Your task to perform on an android device: Open Chrome and go to settings Image 0: 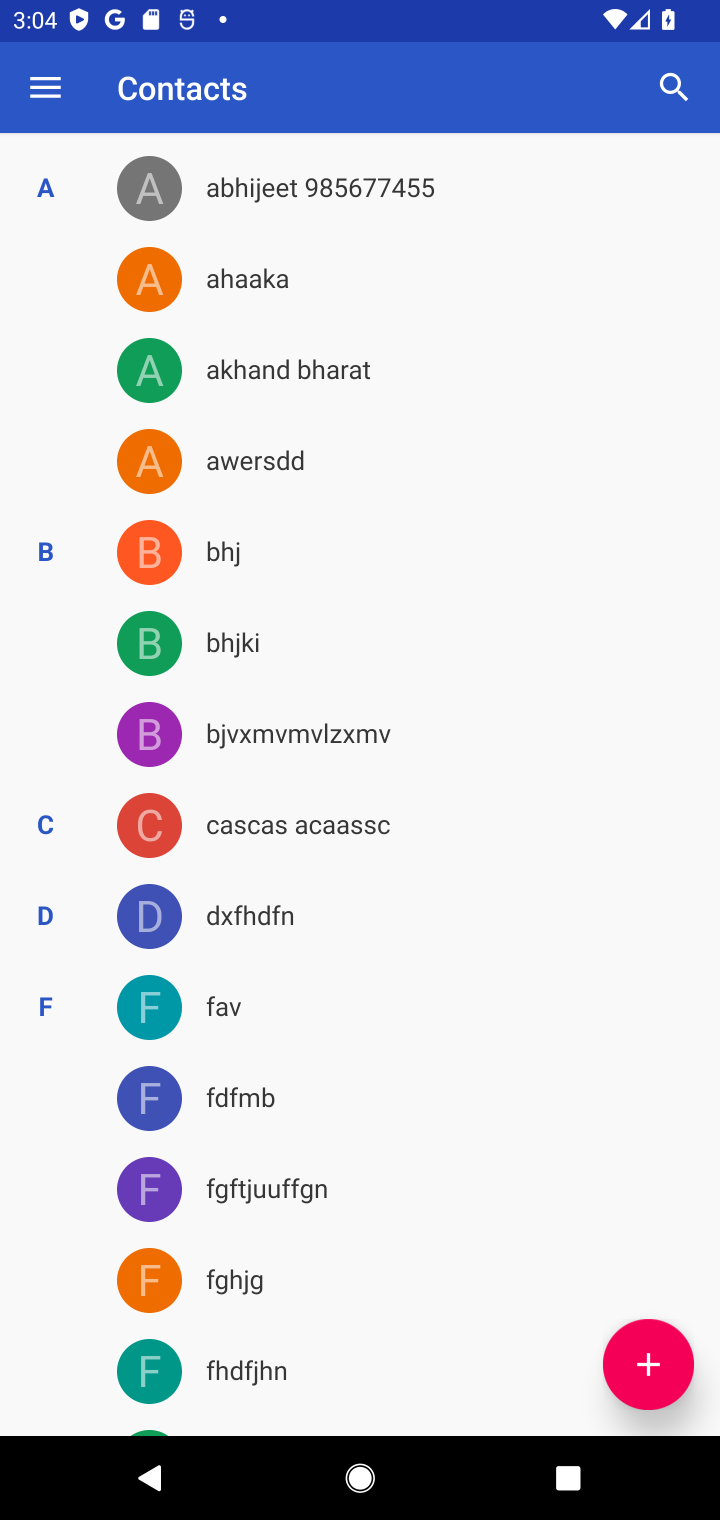
Step 0: press home button
Your task to perform on an android device: Open Chrome and go to settings Image 1: 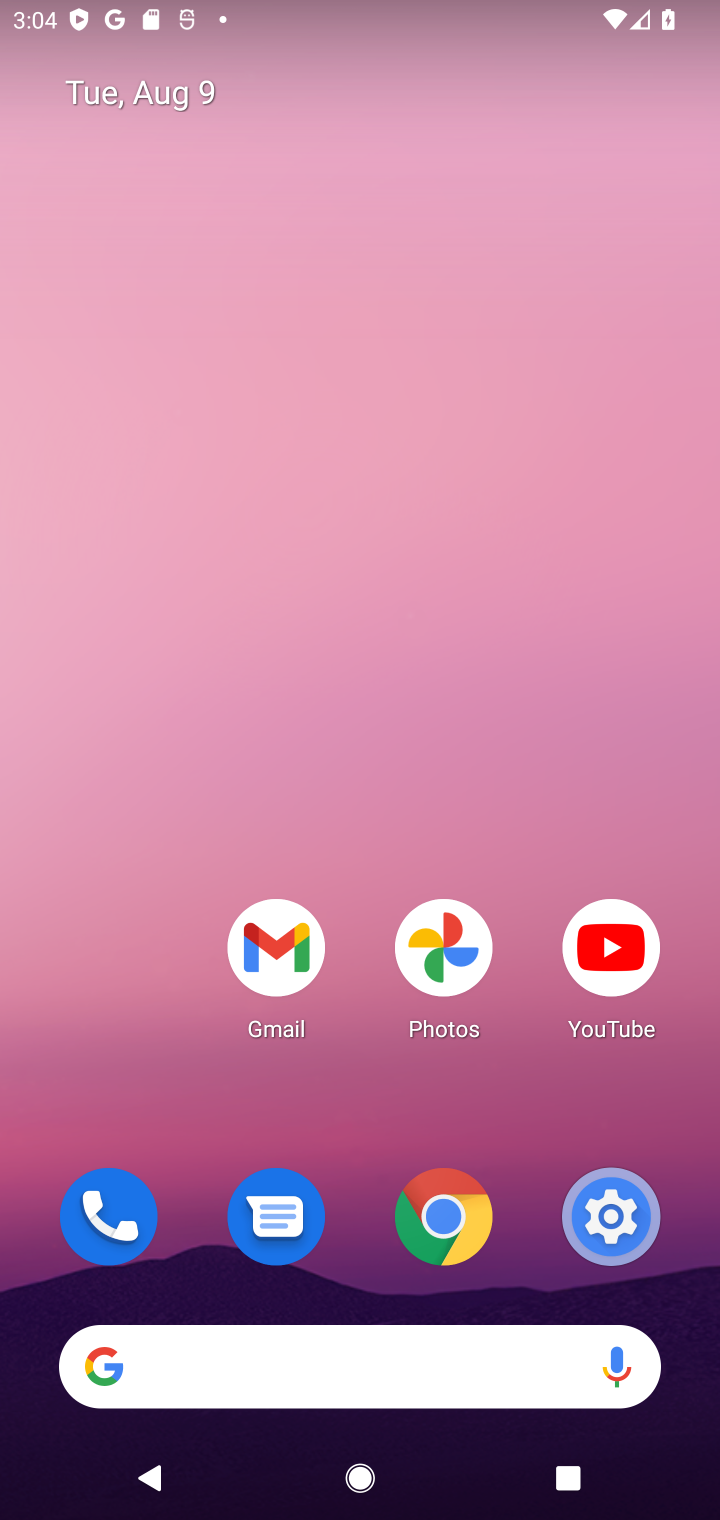
Step 1: click (460, 1226)
Your task to perform on an android device: Open Chrome and go to settings Image 2: 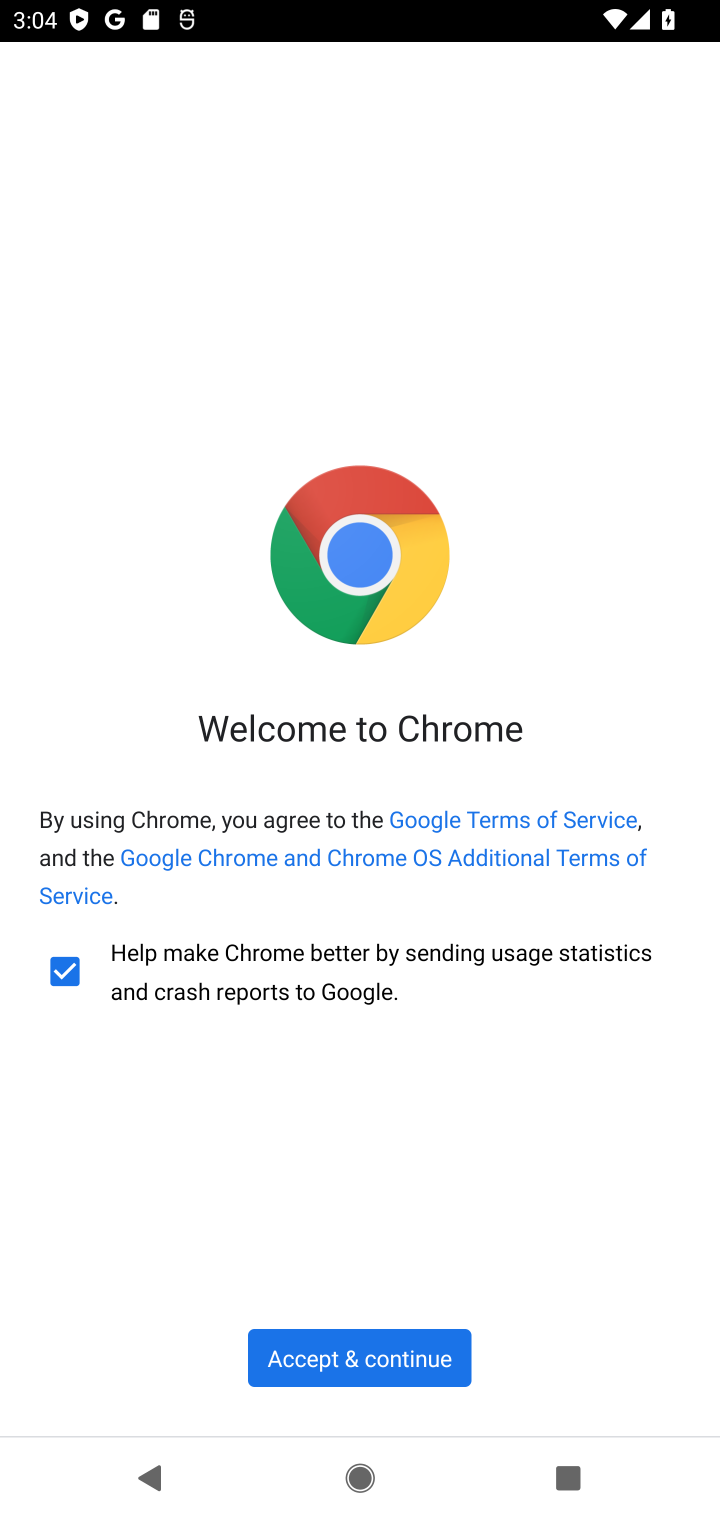
Step 2: click (374, 1348)
Your task to perform on an android device: Open Chrome and go to settings Image 3: 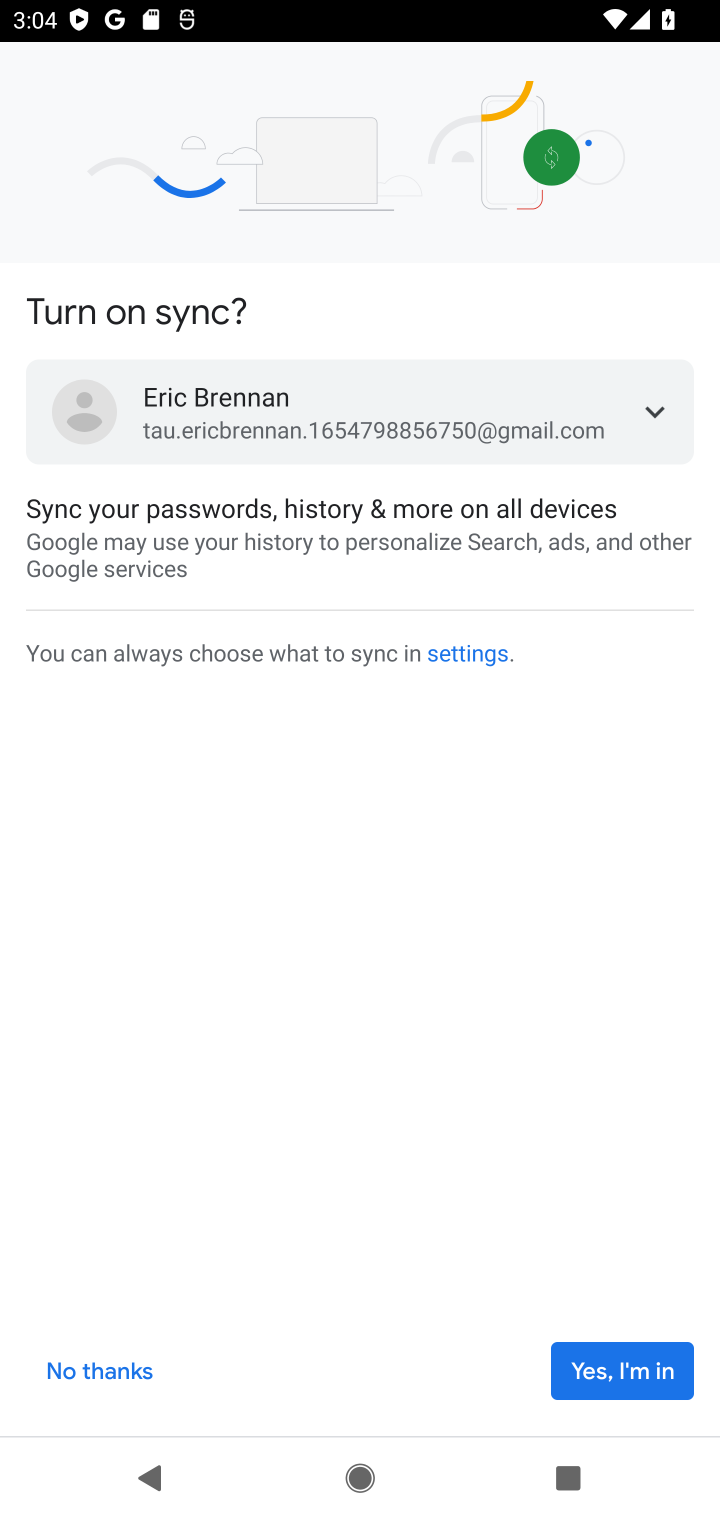
Step 3: click (665, 1365)
Your task to perform on an android device: Open Chrome and go to settings Image 4: 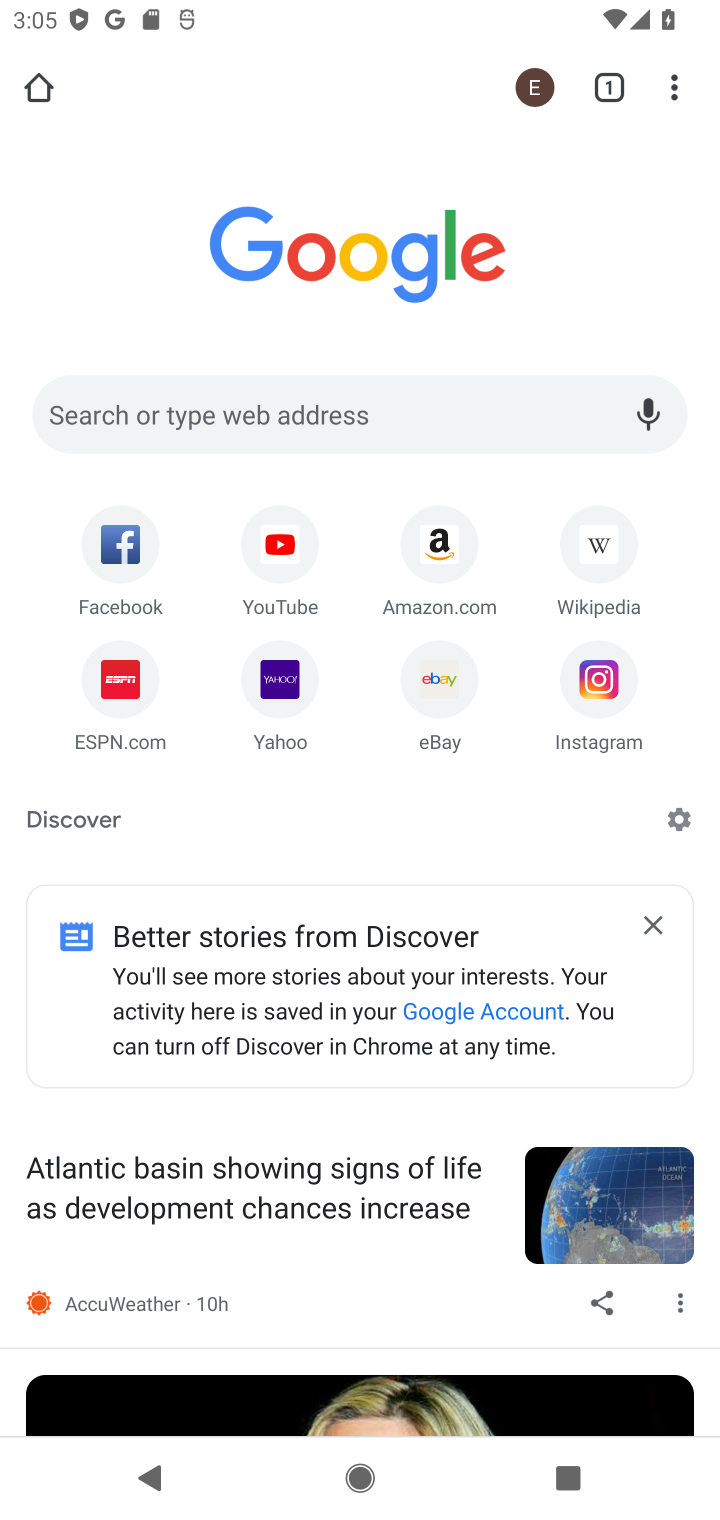
Step 4: click (668, 79)
Your task to perform on an android device: Open Chrome and go to settings Image 5: 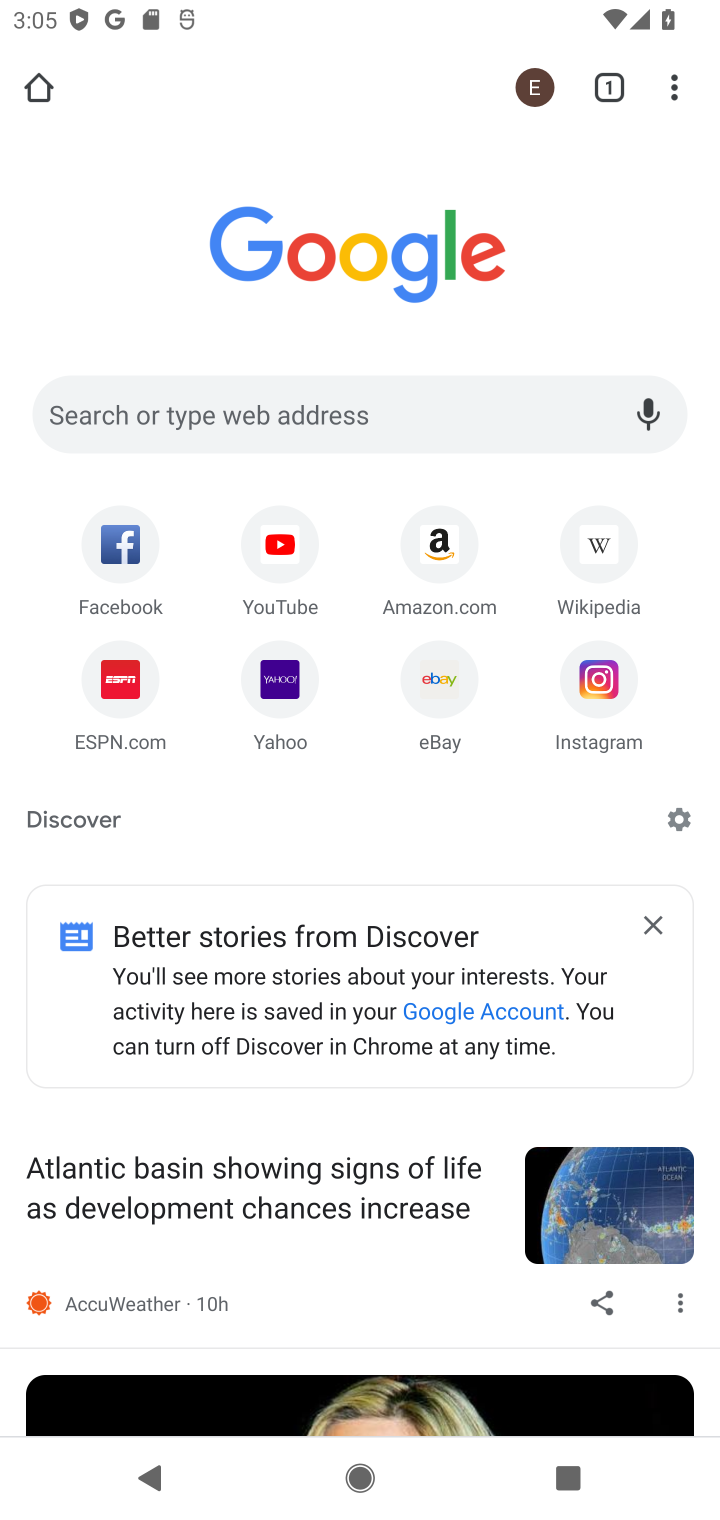
Step 5: click (666, 98)
Your task to perform on an android device: Open Chrome and go to settings Image 6: 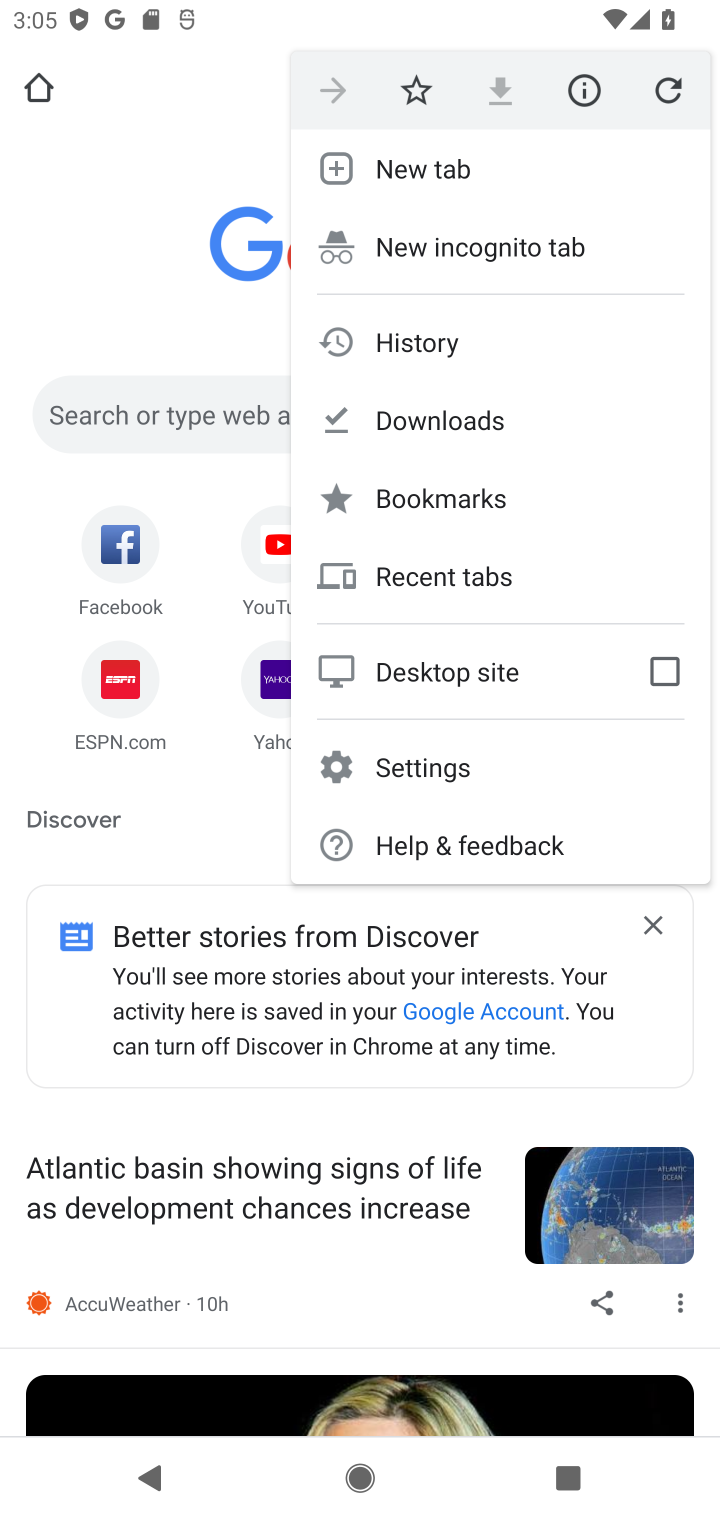
Step 6: click (384, 759)
Your task to perform on an android device: Open Chrome and go to settings Image 7: 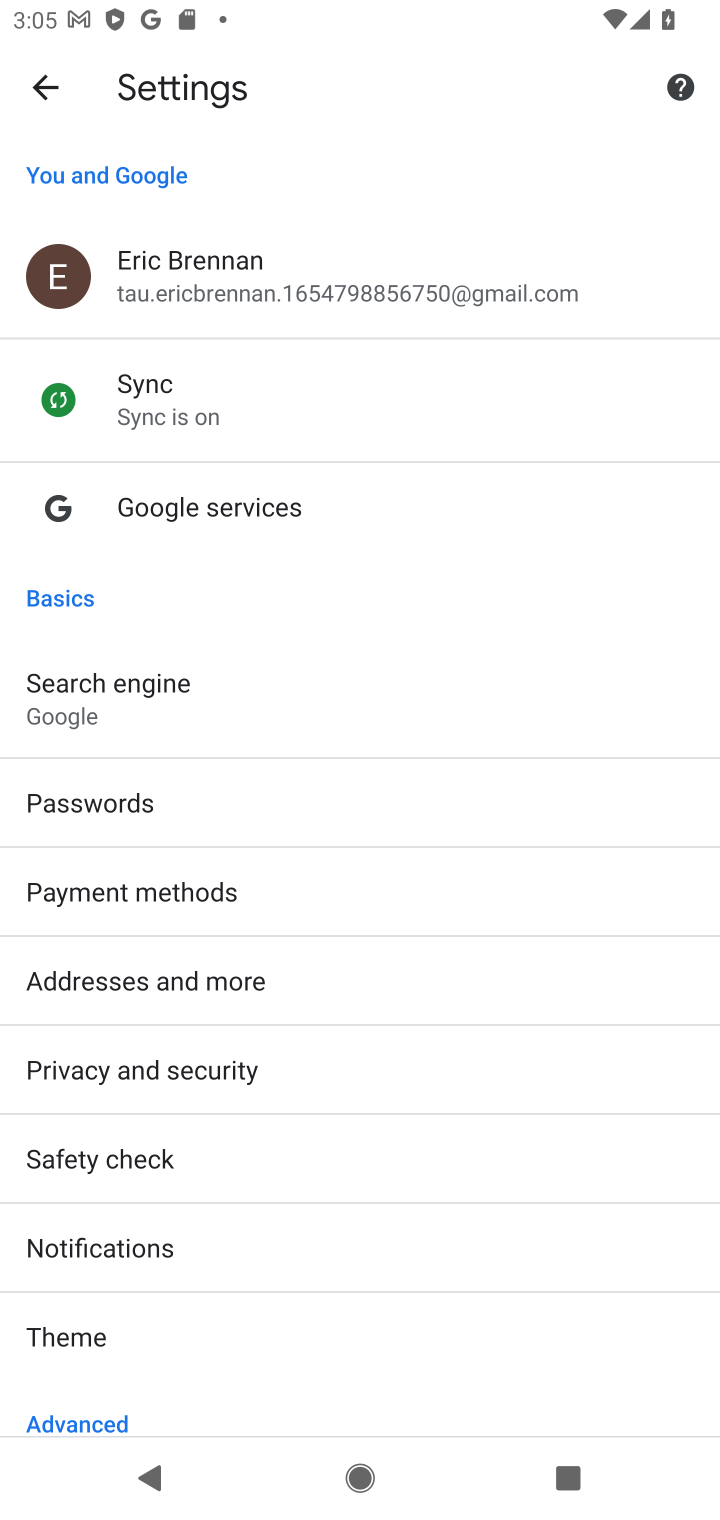
Step 7: task complete